Your task to perform on an android device: Open calendar and show me the first week of next month Image 0: 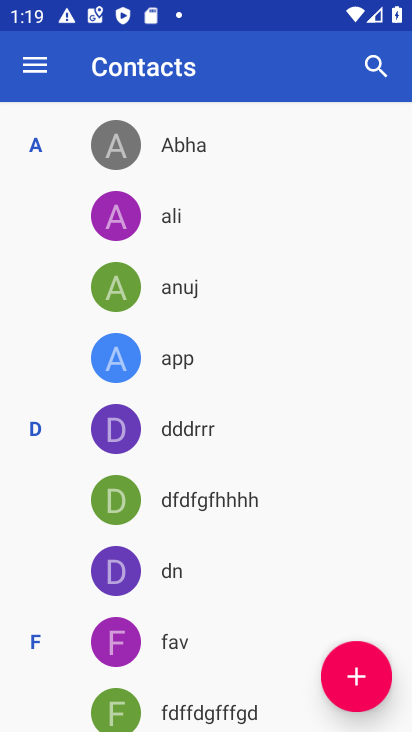
Step 0: press home button
Your task to perform on an android device: Open calendar and show me the first week of next month Image 1: 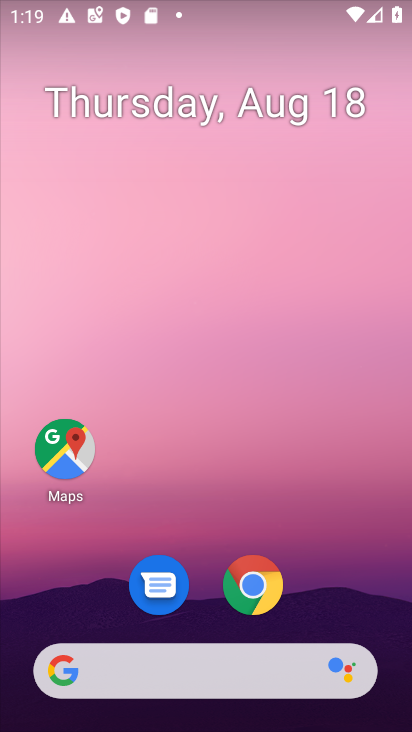
Step 1: drag from (337, 587) to (383, 26)
Your task to perform on an android device: Open calendar and show me the first week of next month Image 2: 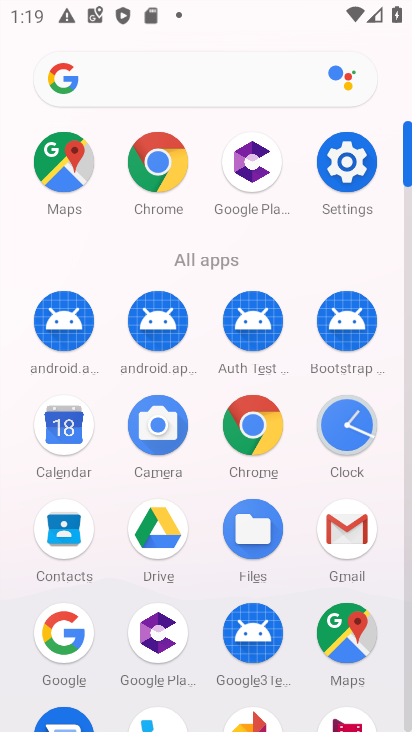
Step 2: click (66, 427)
Your task to perform on an android device: Open calendar and show me the first week of next month Image 3: 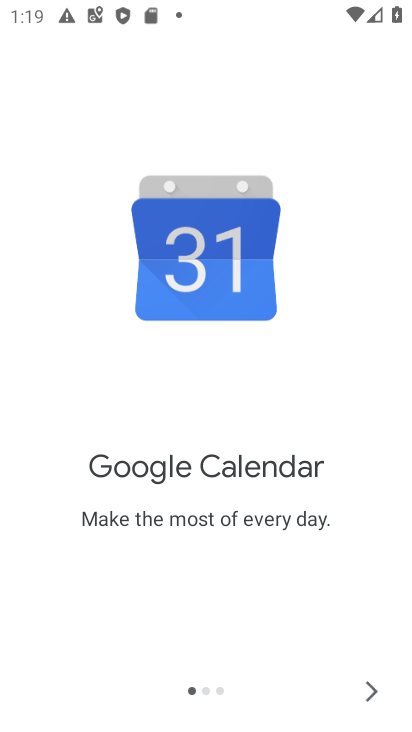
Step 3: click (371, 691)
Your task to perform on an android device: Open calendar and show me the first week of next month Image 4: 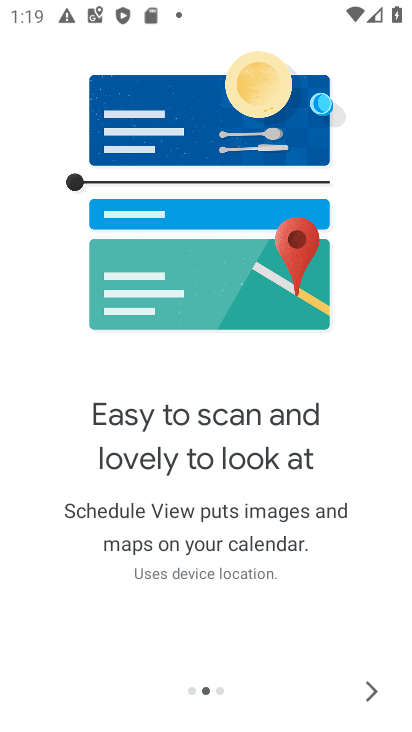
Step 4: click (371, 691)
Your task to perform on an android device: Open calendar and show me the first week of next month Image 5: 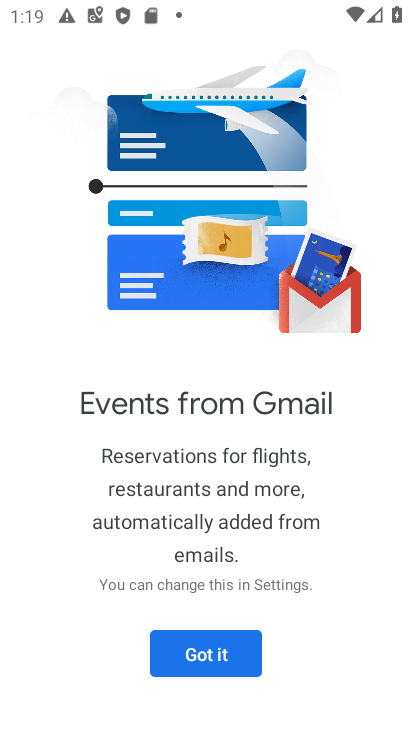
Step 5: click (231, 643)
Your task to perform on an android device: Open calendar and show me the first week of next month Image 6: 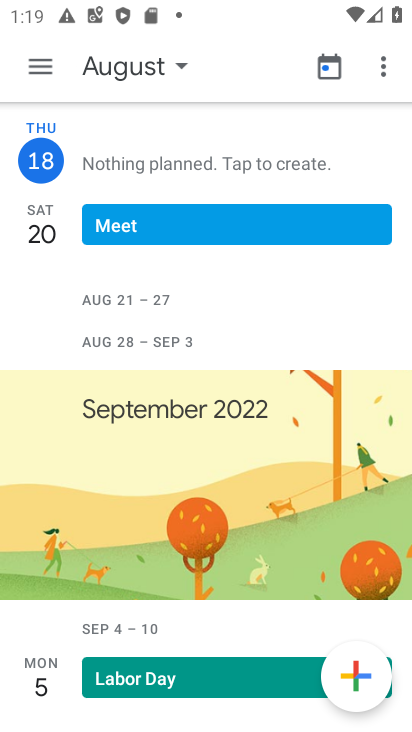
Step 6: click (44, 65)
Your task to perform on an android device: Open calendar and show me the first week of next month Image 7: 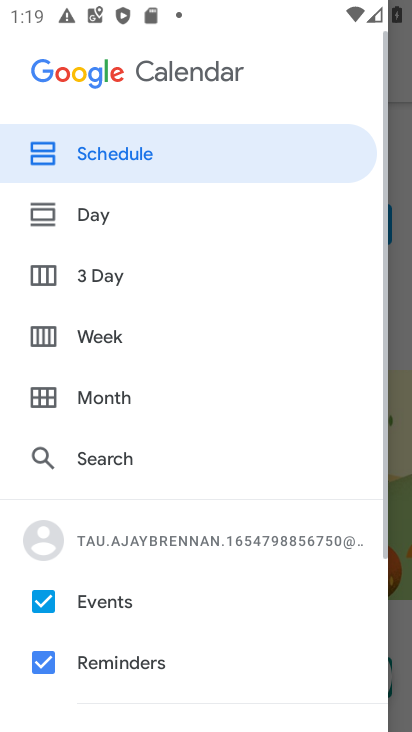
Step 7: click (43, 387)
Your task to perform on an android device: Open calendar and show me the first week of next month Image 8: 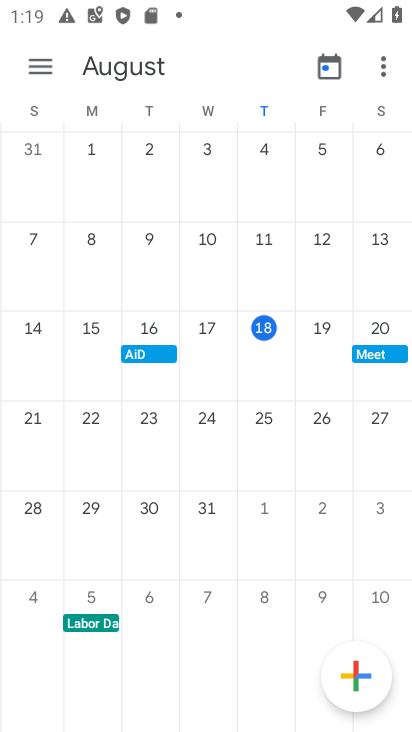
Step 8: drag from (346, 412) to (10, 421)
Your task to perform on an android device: Open calendar and show me the first week of next month Image 9: 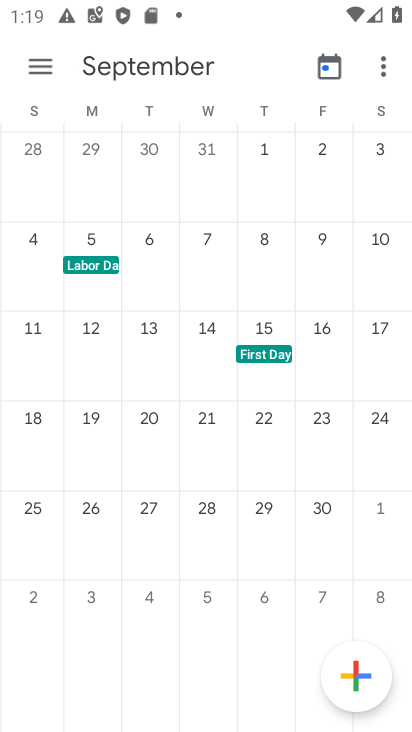
Step 9: click (36, 238)
Your task to perform on an android device: Open calendar and show me the first week of next month Image 10: 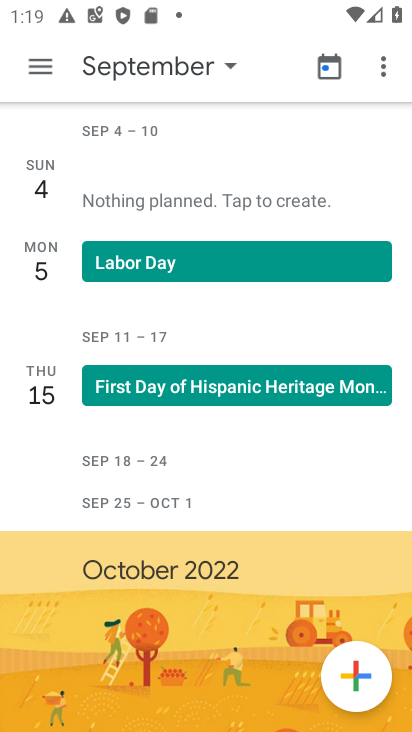
Step 10: click (43, 66)
Your task to perform on an android device: Open calendar and show me the first week of next month Image 11: 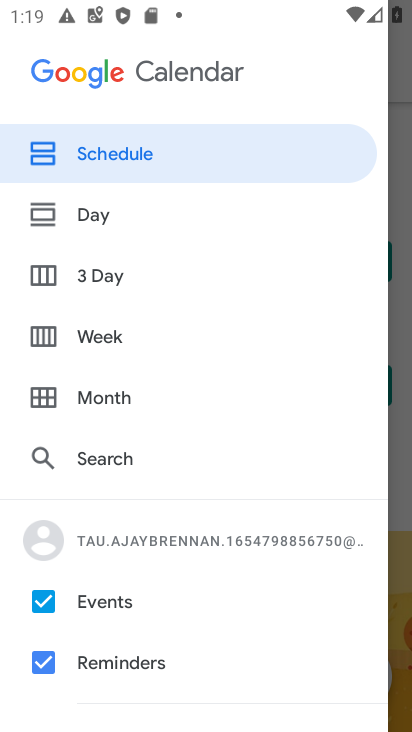
Step 11: click (43, 328)
Your task to perform on an android device: Open calendar and show me the first week of next month Image 12: 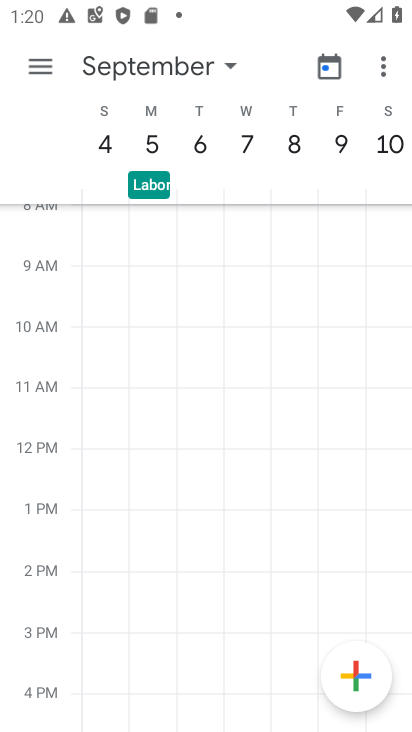
Step 12: task complete